Your task to perform on an android device: change your default location settings in chrome Image 0: 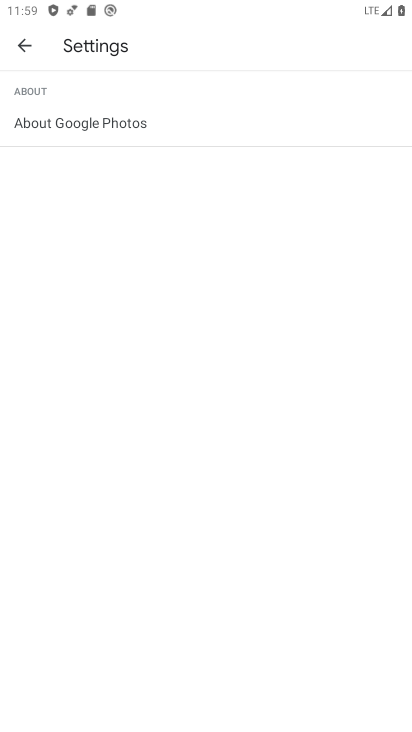
Step 0: press home button
Your task to perform on an android device: change your default location settings in chrome Image 1: 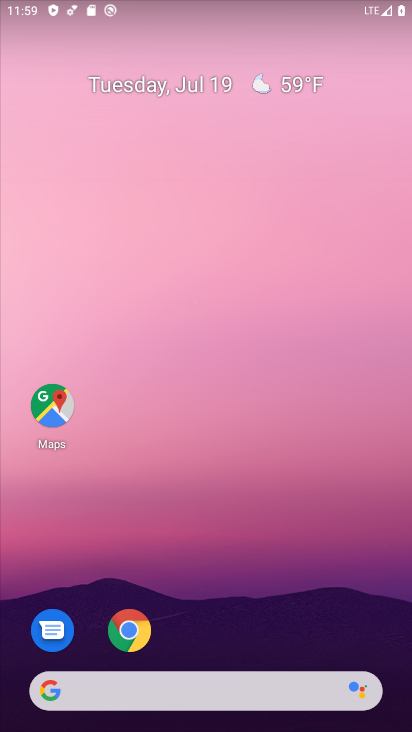
Step 1: drag from (265, 625) to (322, 173)
Your task to perform on an android device: change your default location settings in chrome Image 2: 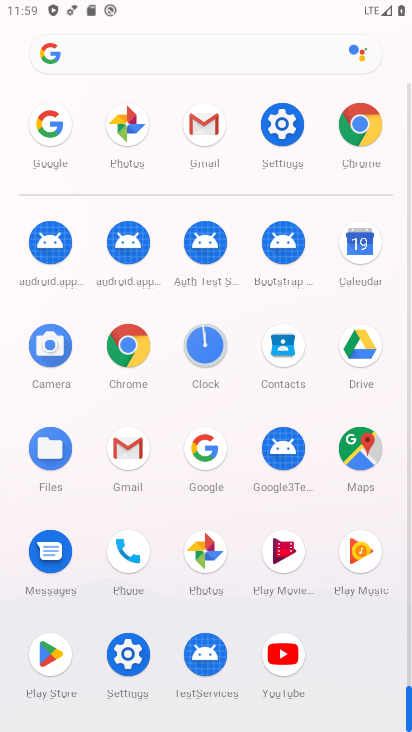
Step 2: click (146, 361)
Your task to perform on an android device: change your default location settings in chrome Image 3: 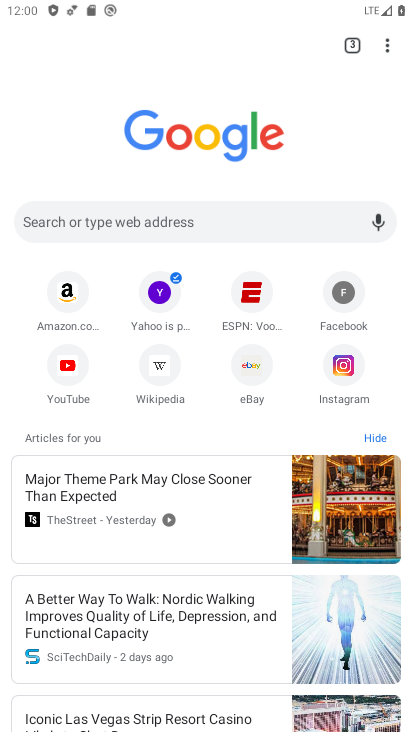
Step 3: task complete